Your task to perform on an android device: What's the weather going to be tomorrow? Image 0: 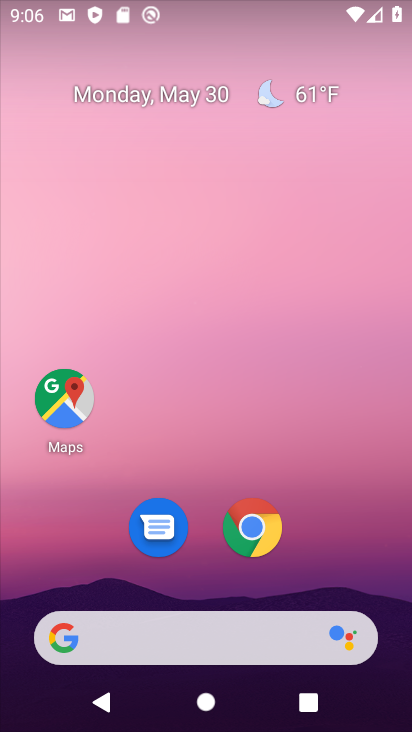
Step 0: click (170, 640)
Your task to perform on an android device: What's the weather going to be tomorrow? Image 1: 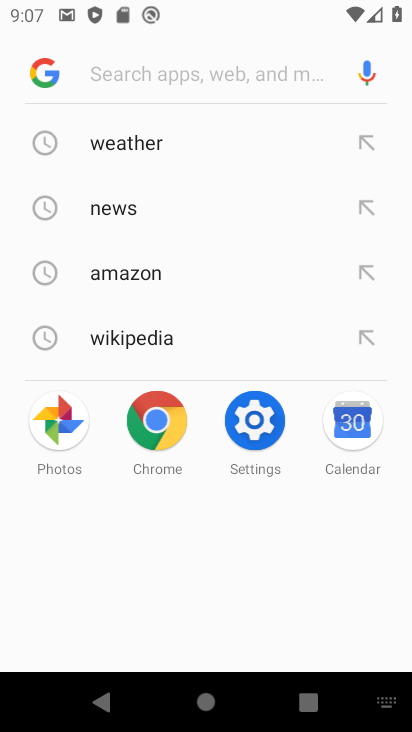
Step 1: type "what's the weather going to be tomorrow"
Your task to perform on an android device: What's the weather going to be tomorrow? Image 2: 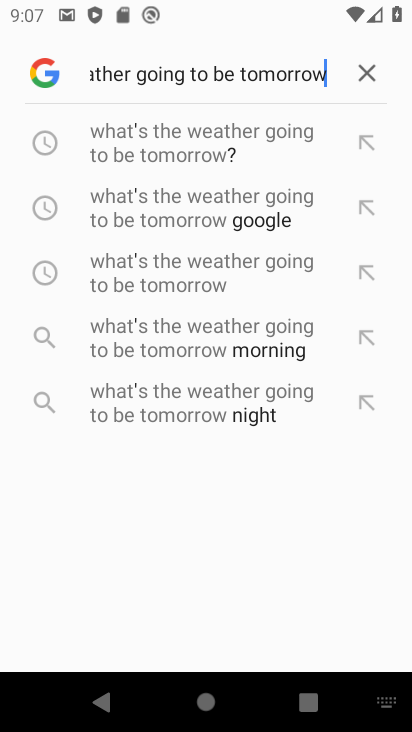
Step 2: click (186, 148)
Your task to perform on an android device: What's the weather going to be tomorrow? Image 3: 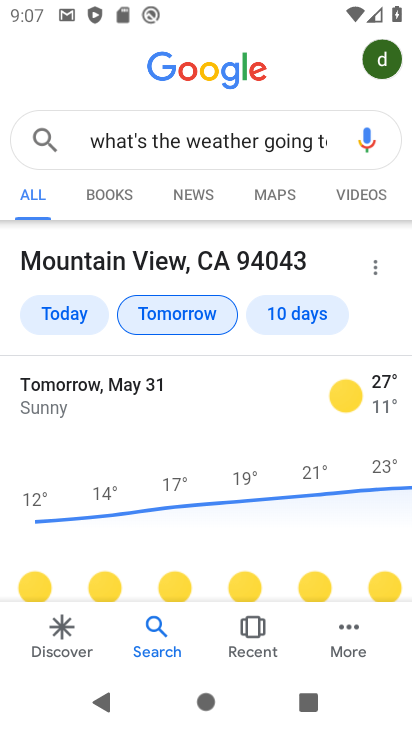
Step 3: task complete